Your task to perform on an android device: Clear all items from cart on costco. Search for asus rog on costco, select the first entry, and add it to the cart. Image 0: 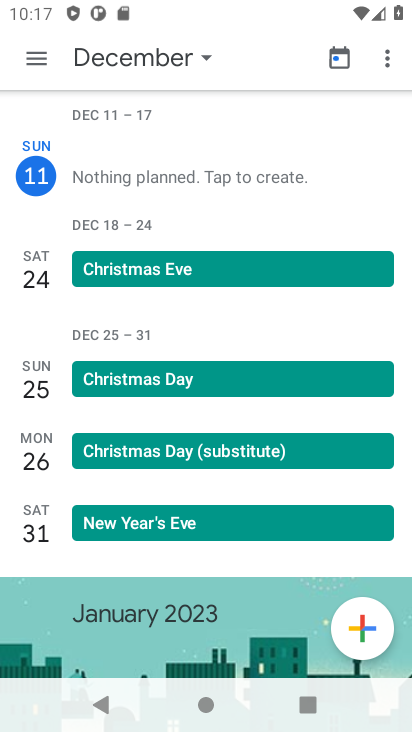
Step 0: press home button
Your task to perform on an android device: Clear all items from cart on costco. Search for asus rog on costco, select the first entry, and add it to the cart. Image 1: 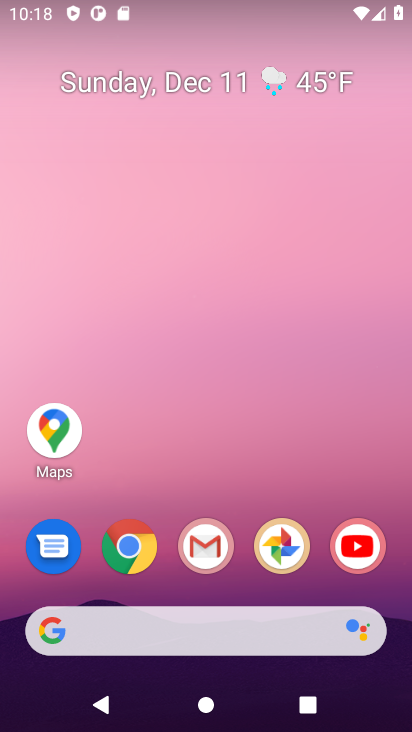
Step 1: click (133, 548)
Your task to perform on an android device: Clear all items from cart on costco. Search for asus rog on costco, select the first entry, and add it to the cart. Image 2: 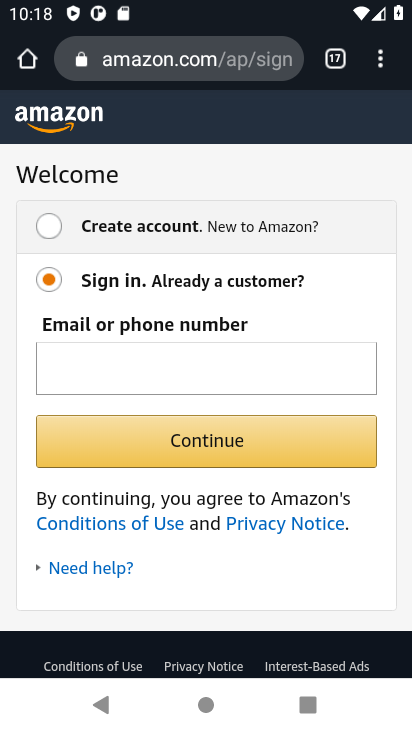
Step 2: click (173, 57)
Your task to perform on an android device: Clear all items from cart on costco. Search for asus rog on costco, select the first entry, and add it to the cart. Image 3: 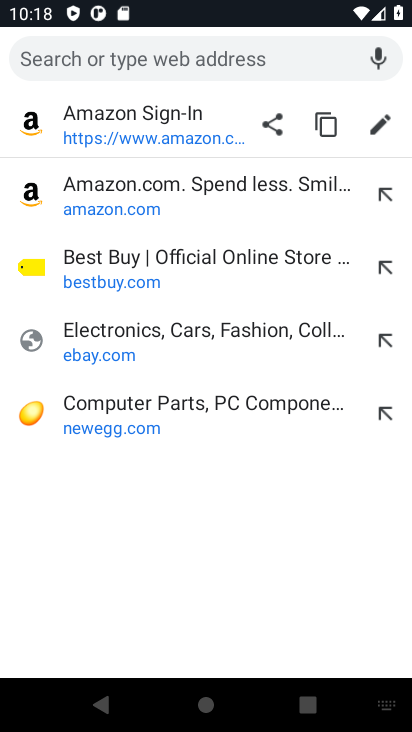
Step 3: type "costco.com"
Your task to perform on an android device: Clear all items from cart on costco. Search for asus rog on costco, select the first entry, and add it to the cart. Image 4: 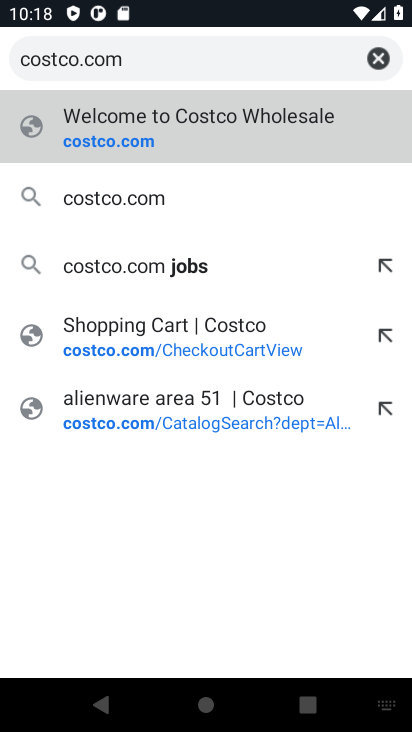
Step 4: click (112, 126)
Your task to perform on an android device: Clear all items from cart on costco. Search for asus rog on costco, select the first entry, and add it to the cart. Image 5: 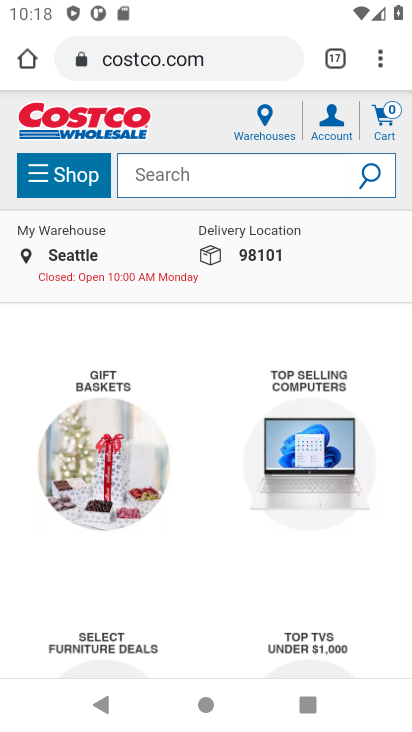
Step 5: click (385, 122)
Your task to perform on an android device: Clear all items from cart on costco. Search for asus rog on costco, select the first entry, and add it to the cart. Image 6: 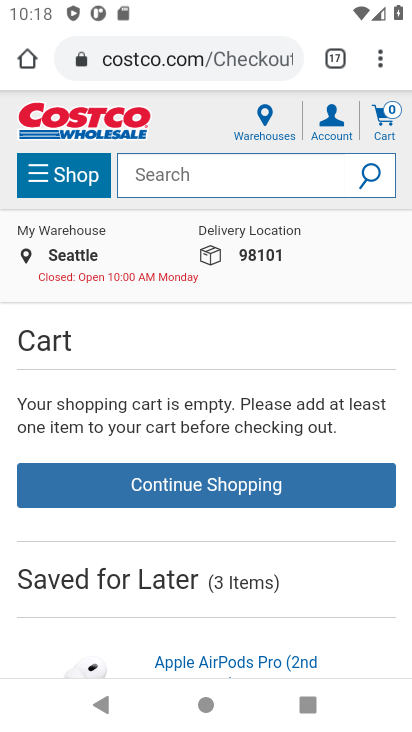
Step 6: click (174, 181)
Your task to perform on an android device: Clear all items from cart on costco. Search for asus rog on costco, select the first entry, and add it to the cart. Image 7: 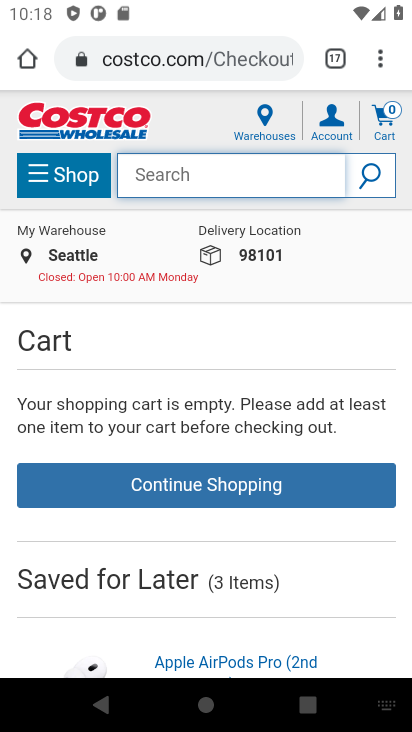
Step 7: type "asus rog"
Your task to perform on an android device: Clear all items from cart on costco. Search for asus rog on costco, select the first entry, and add it to the cart. Image 8: 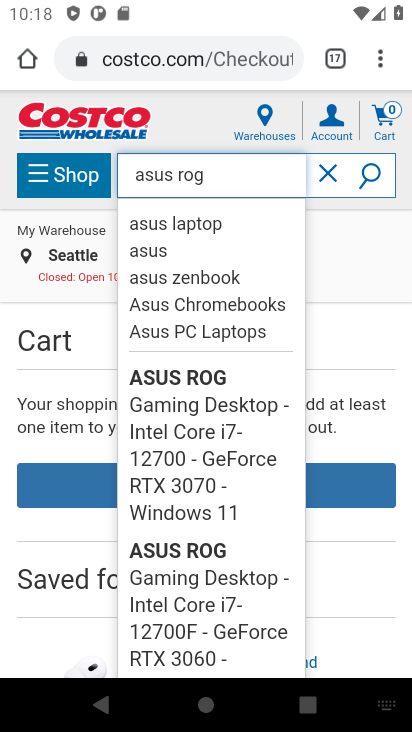
Step 8: click (197, 378)
Your task to perform on an android device: Clear all items from cart on costco. Search for asus rog on costco, select the first entry, and add it to the cart. Image 9: 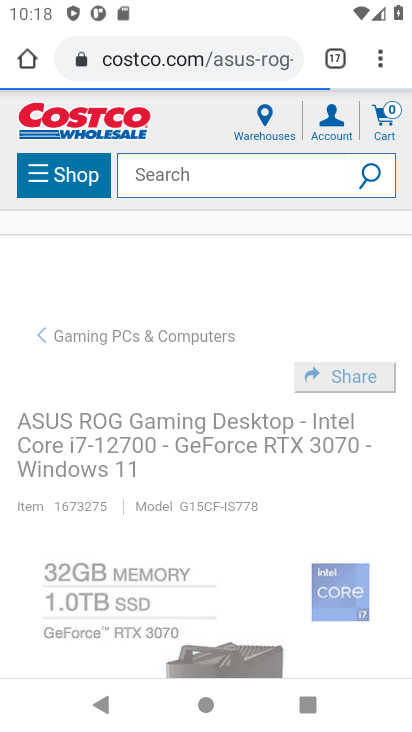
Step 9: drag from (165, 520) to (158, 252)
Your task to perform on an android device: Clear all items from cart on costco. Search for asus rog on costco, select the first entry, and add it to the cart. Image 10: 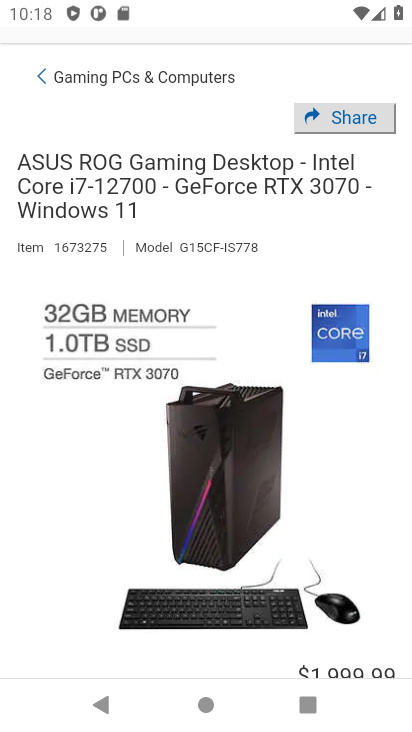
Step 10: drag from (174, 495) to (168, 248)
Your task to perform on an android device: Clear all items from cart on costco. Search for asus rog on costco, select the first entry, and add it to the cart. Image 11: 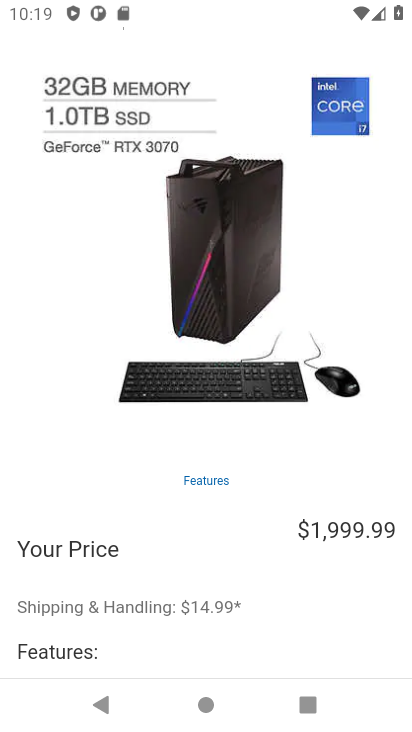
Step 11: drag from (180, 478) to (181, 193)
Your task to perform on an android device: Clear all items from cart on costco. Search for asus rog on costco, select the first entry, and add it to the cart. Image 12: 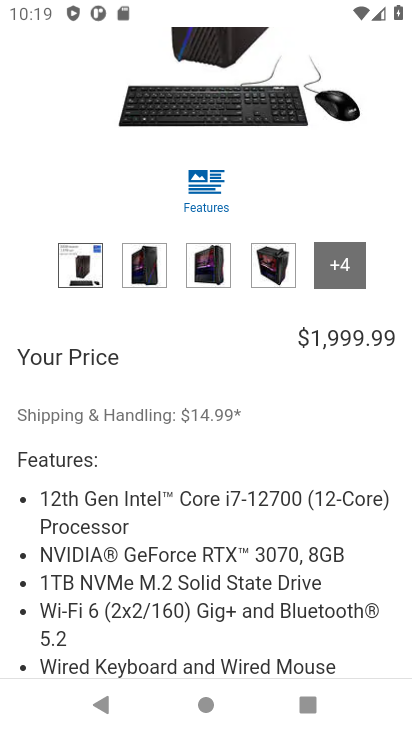
Step 12: drag from (181, 508) to (163, 160)
Your task to perform on an android device: Clear all items from cart on costco. Search for asus rog on costco, select the first entry, and add it to the cart. Image 13: 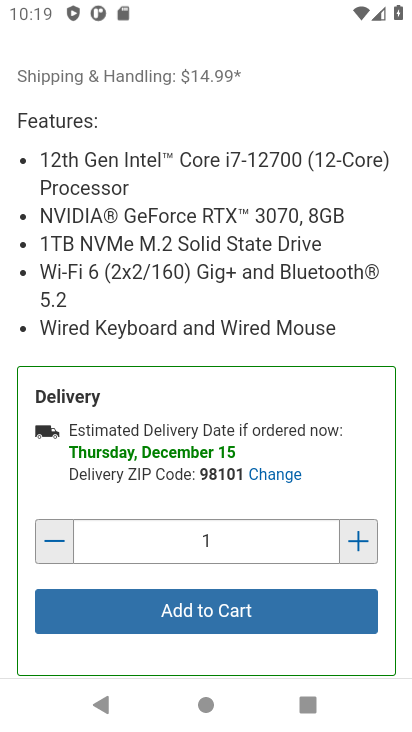
Step 13: click (190, 608)
Your task to perform on an android device: Clear all items from cart on costco. Search for asus rog on costco, select the first entry, and add it to the cart. Image 14: 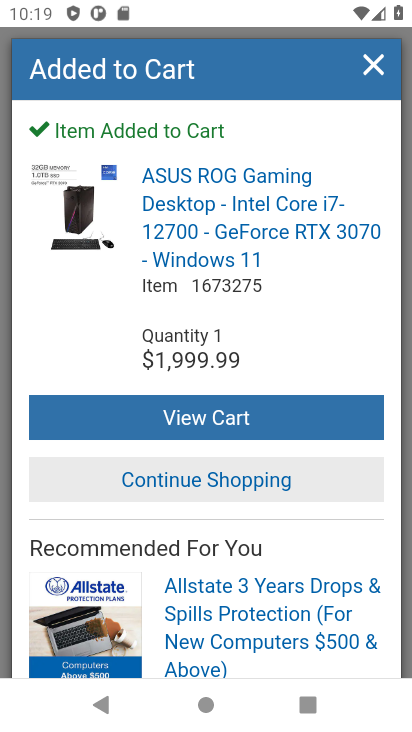
Step 14: task complete